Your task to perform on an android device: Open Android settings Image 0: 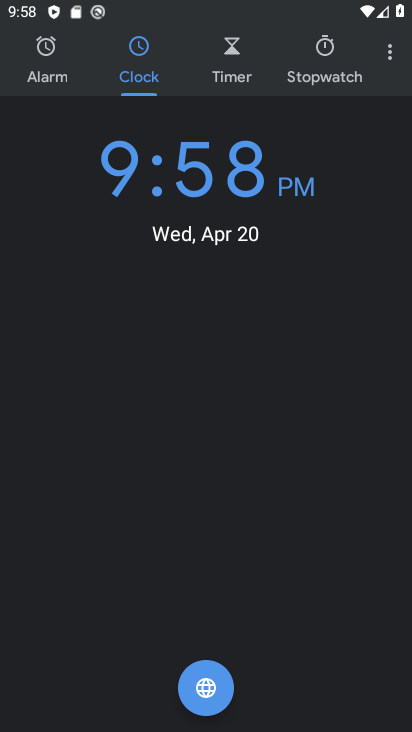
Step 0: press home button
Your task to perform on an android device: Open Android settings Image 1: 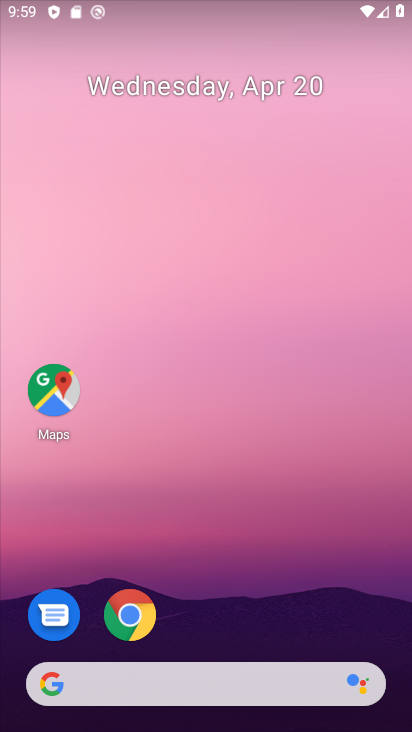
Step 1: drag from (253, 462) to (269, 162)
Your task to perform on an android device: Open Android settings Image 2: 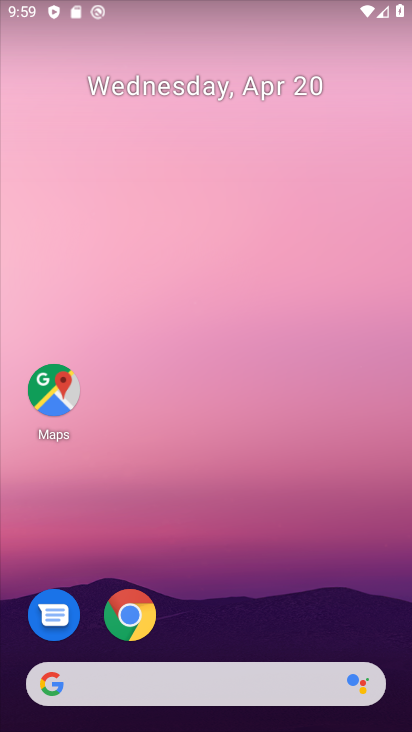
Step 2: drag from (283, 566) to (270, 91)
Your task to perform on an android device: Open Android settings Image 3: 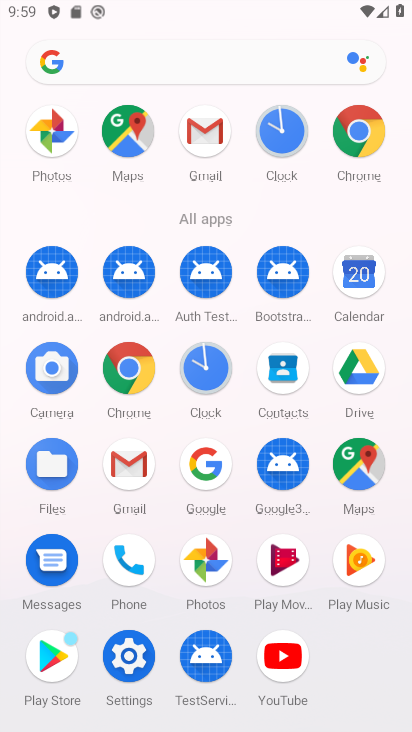
Step 3: click (137, 657)
Your task to perform on an android device: Open Android settings Image 4: 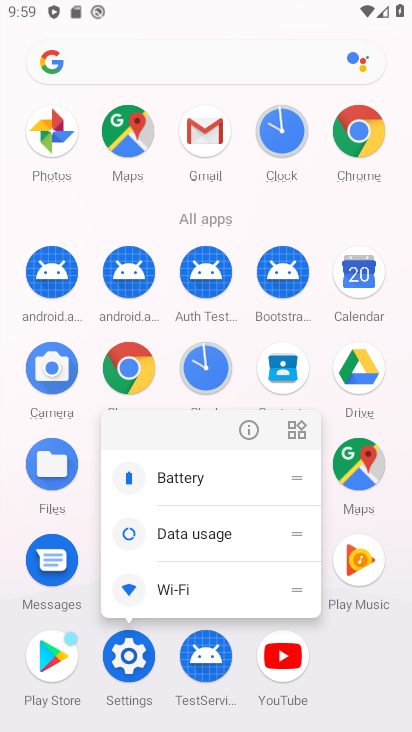
Step 4: click (137, 655)
Your task to perform on an android device: Open Android settings Image 5: 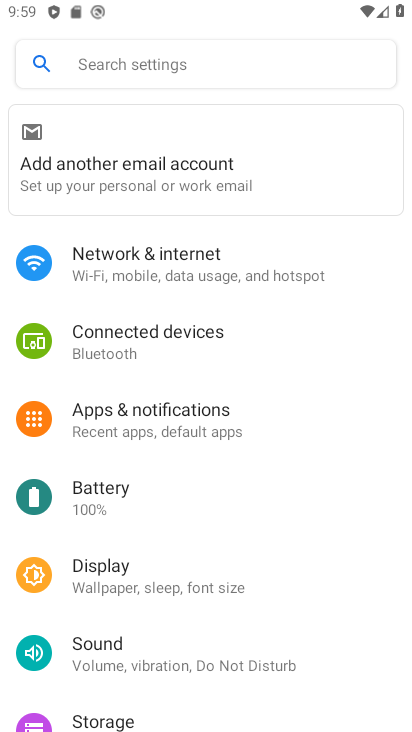
Step 5: drag from (261, 623) to (259, 187)
Your task to perform on an android device: Open Android settings Image 6: 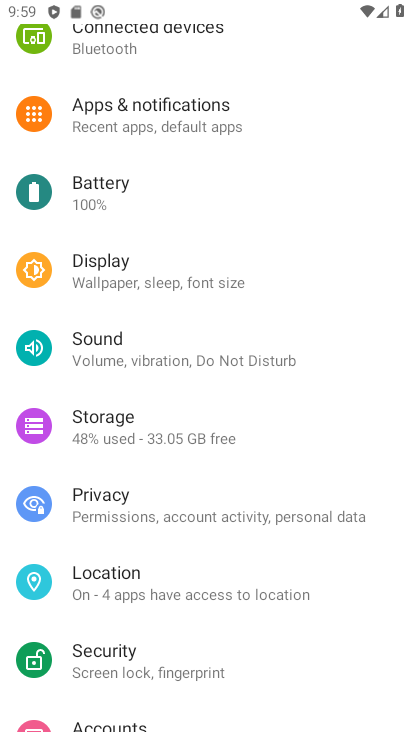
Step 6: drag from (253, 520) to (253, 150)
Your task to perform on an android device: Open Android settings Image 7: 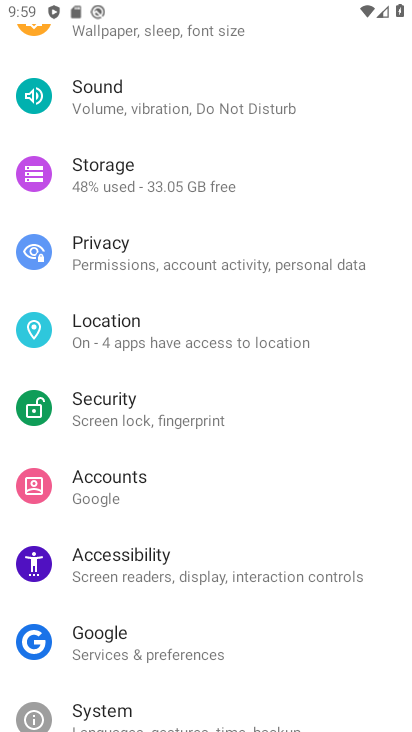
Step 7: drag from (266, 681) to (249, 256)
Your task to perform on an android device: Open Android settings Image 8: 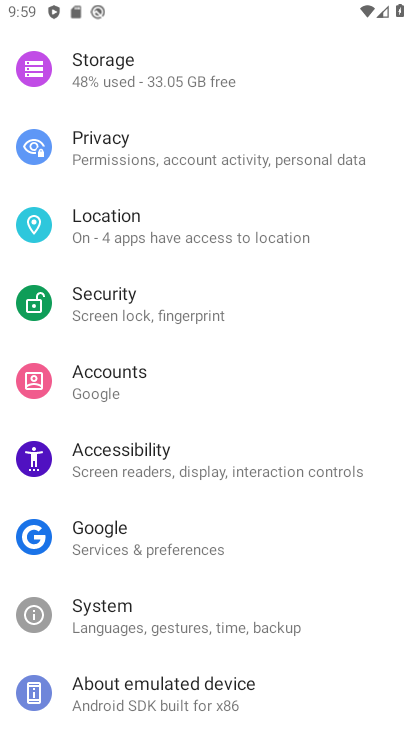
Step 8: click (191, 691)
Your task to perform on an android device: Open Android settings Image 9: 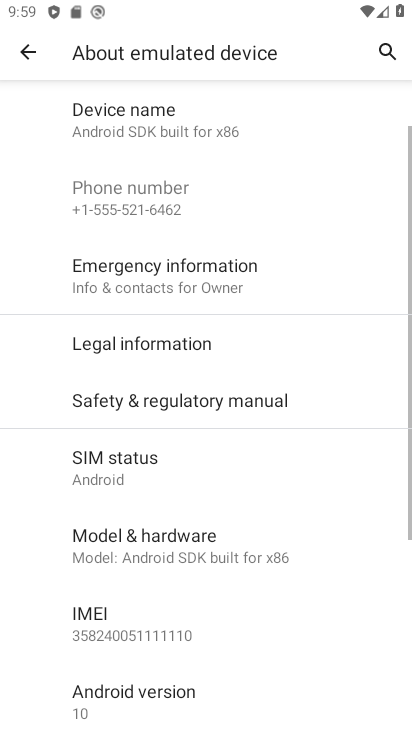
Step 9: click (189, 692)
Your task to perform on an android device: Open Android settings Image 10: 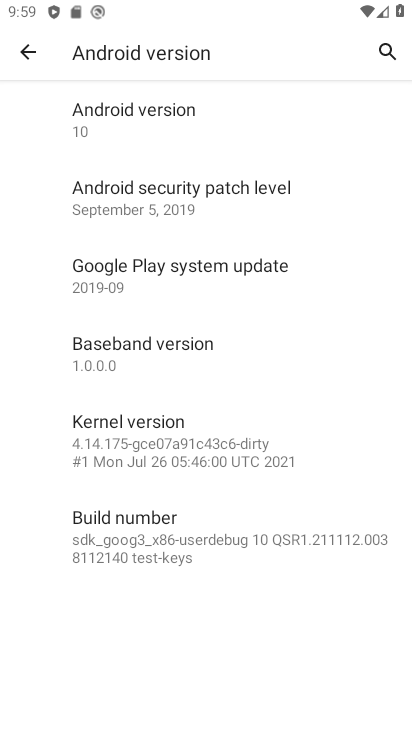
Step 10: task complete